Your task to perform on an android device: set the stopwatch Image 0: 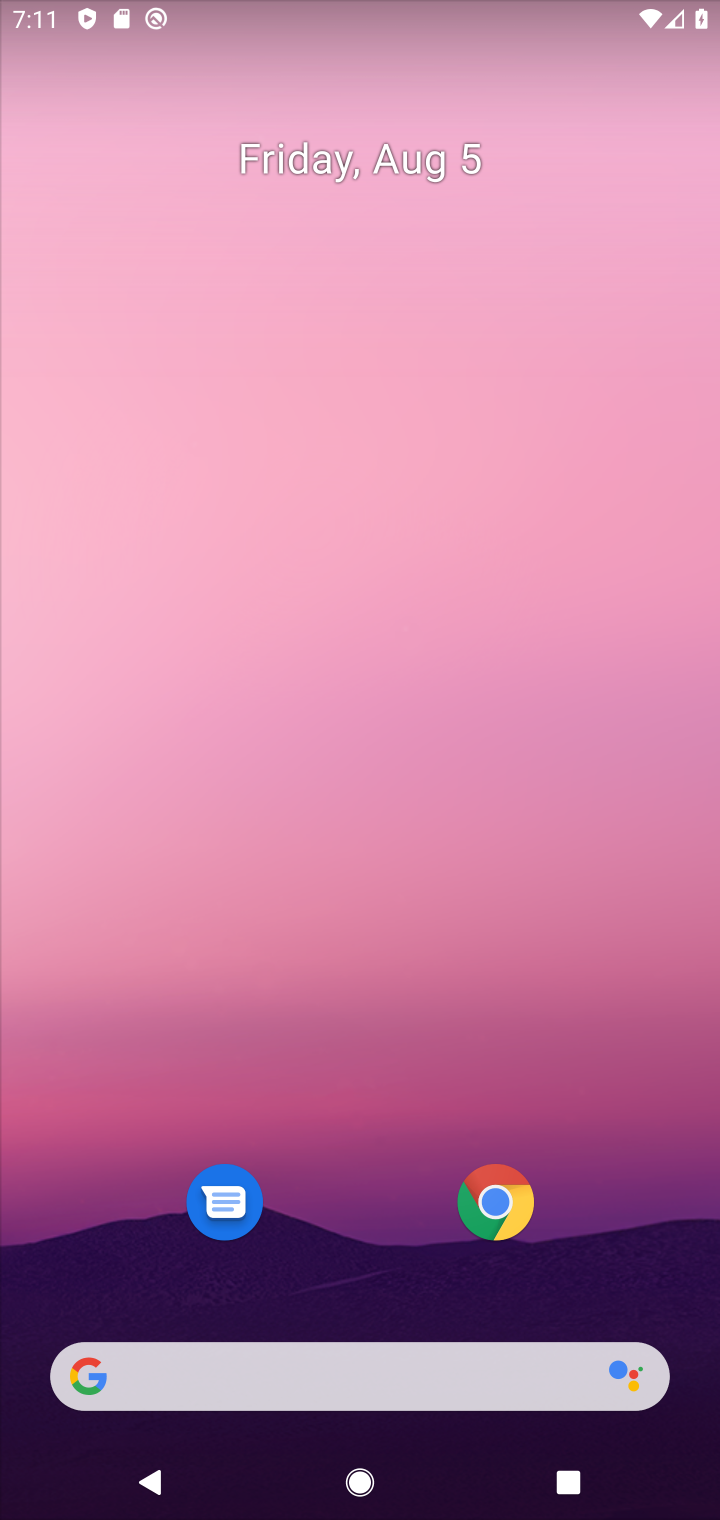
Step 0: drag from (440, 845) to (504, 9)
Your task to perform on an android device: set the stopwatch Image 1: 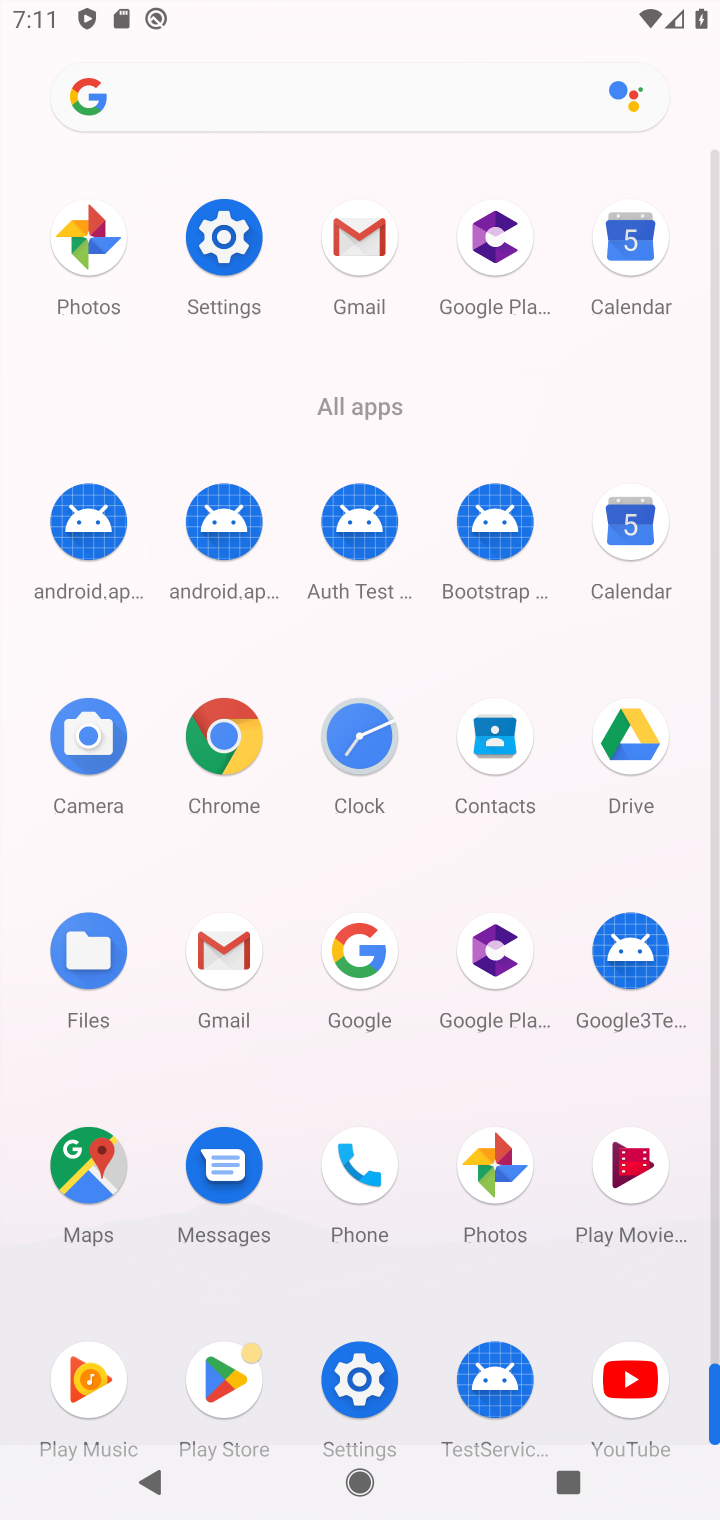
Step 1: drag from (418, 1269) to (435, 442)
Your task to perform on an android device: set the stopwatch Image 2: 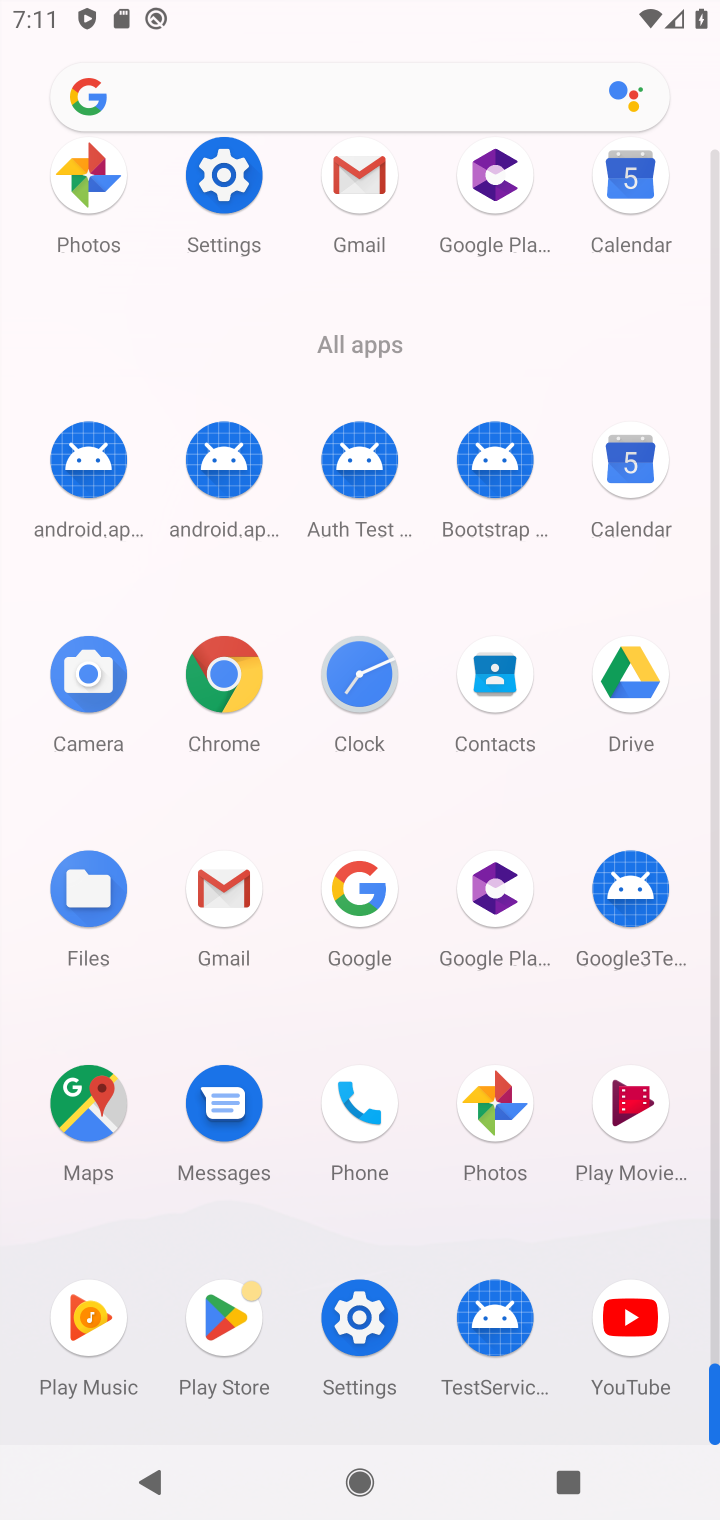
Step 2: click (385, 669)
Your task to perform on an android device: set the stopwatch Image 3: 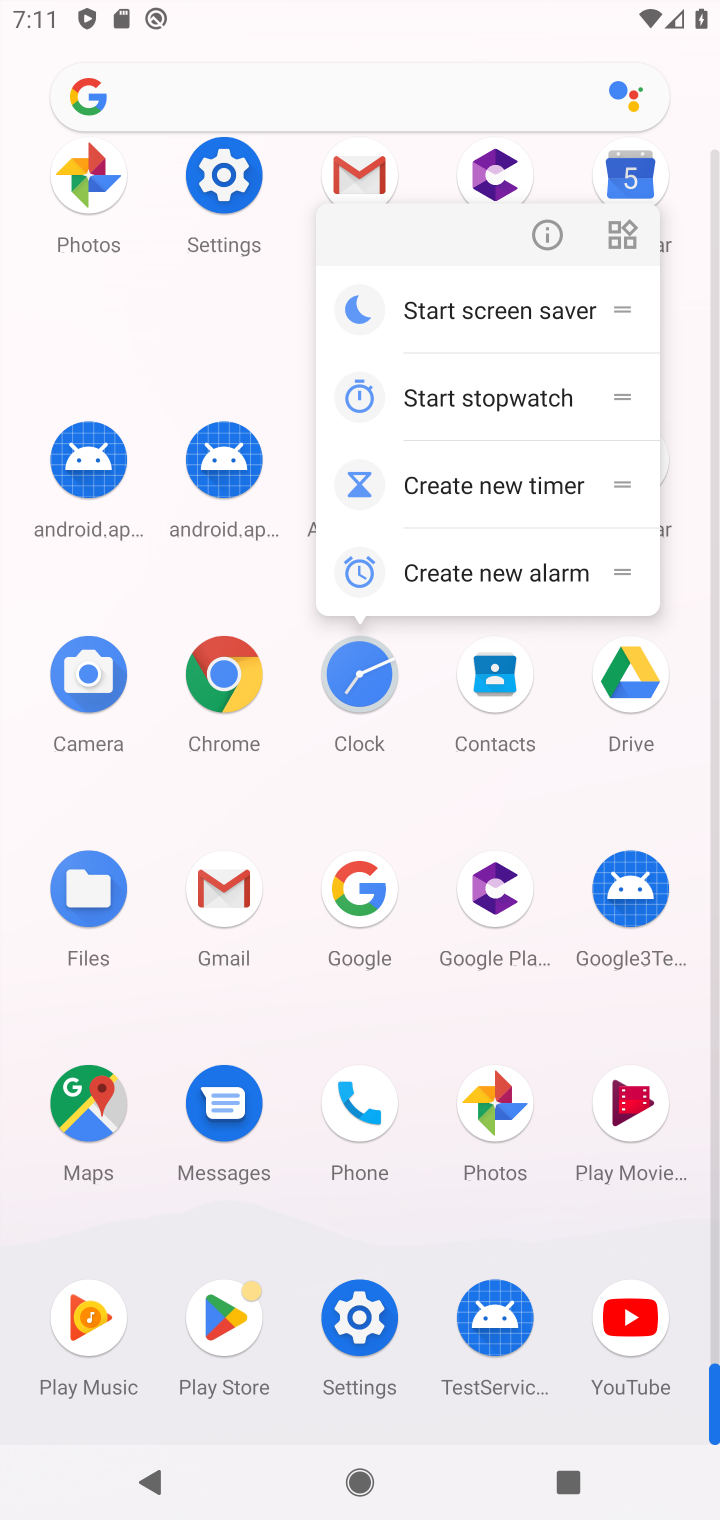
Step 3: click (544, 230)
Your task to perform on an android device: set the stopwatch Image 4: 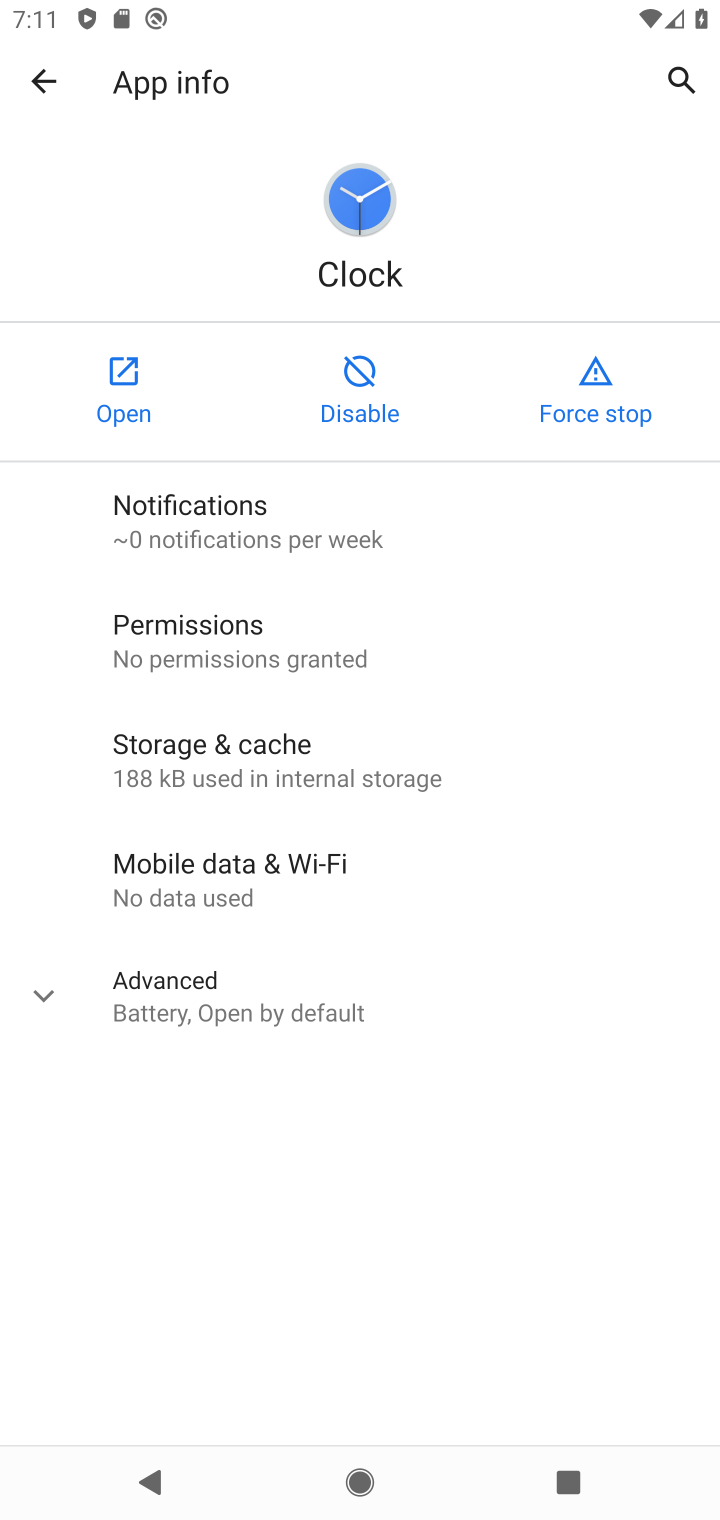
Step 4: click (128, 367)
Your task to perform on an android device: set the stopwatch Image 5: 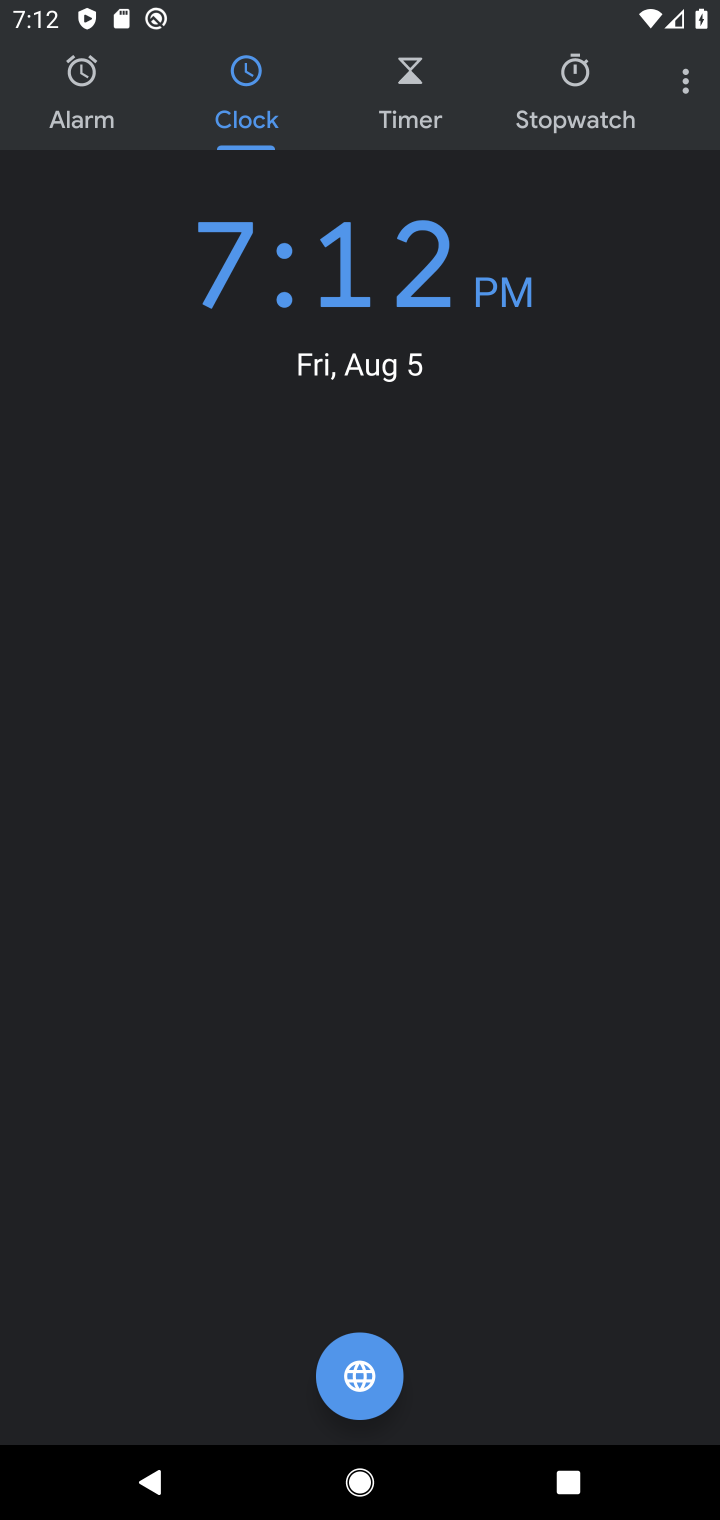
Step 5: click (515, 84)
Your task to perform on an android device: set the stopwatch Image 6: 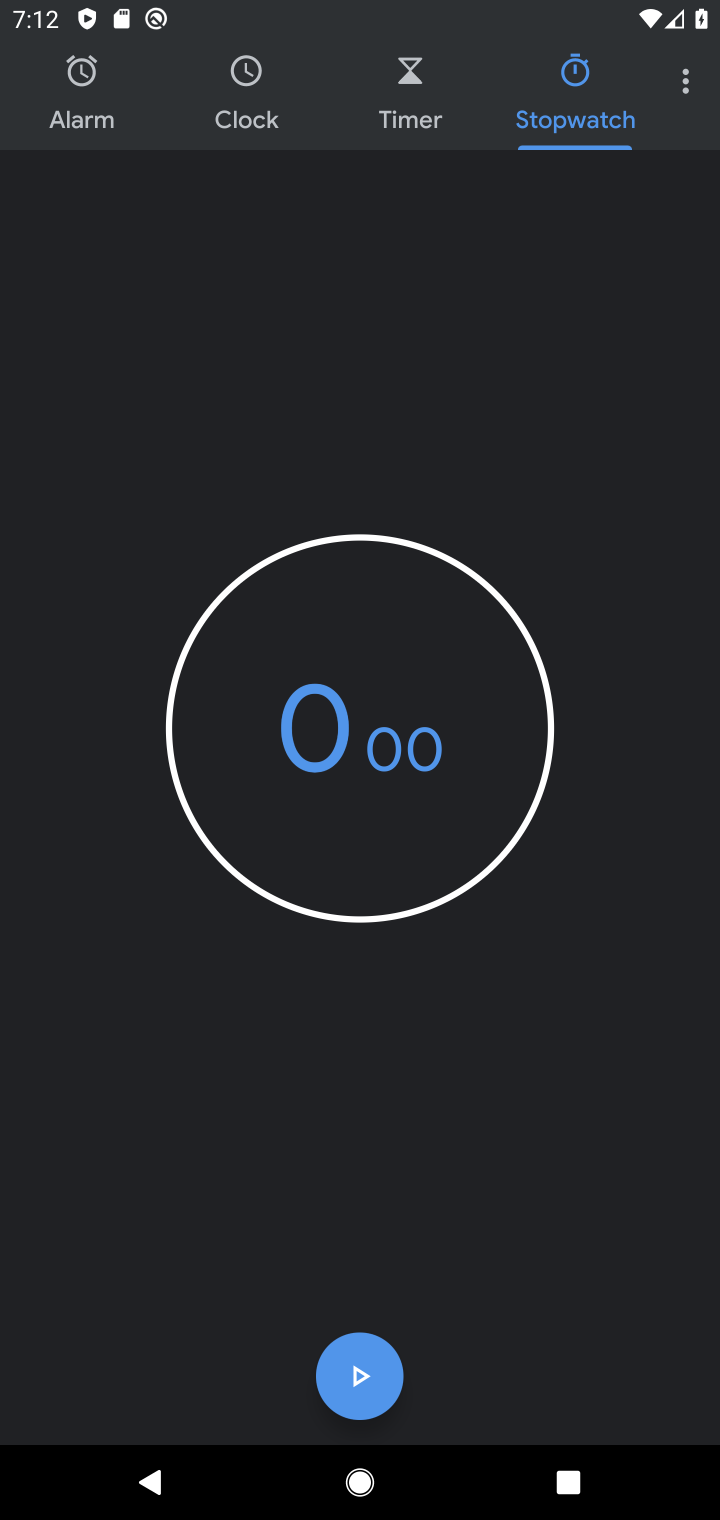
Step 6: drag from (428, 918) to (478, 378)
Your task to perform on an android device: set the stopwatch Image 7: 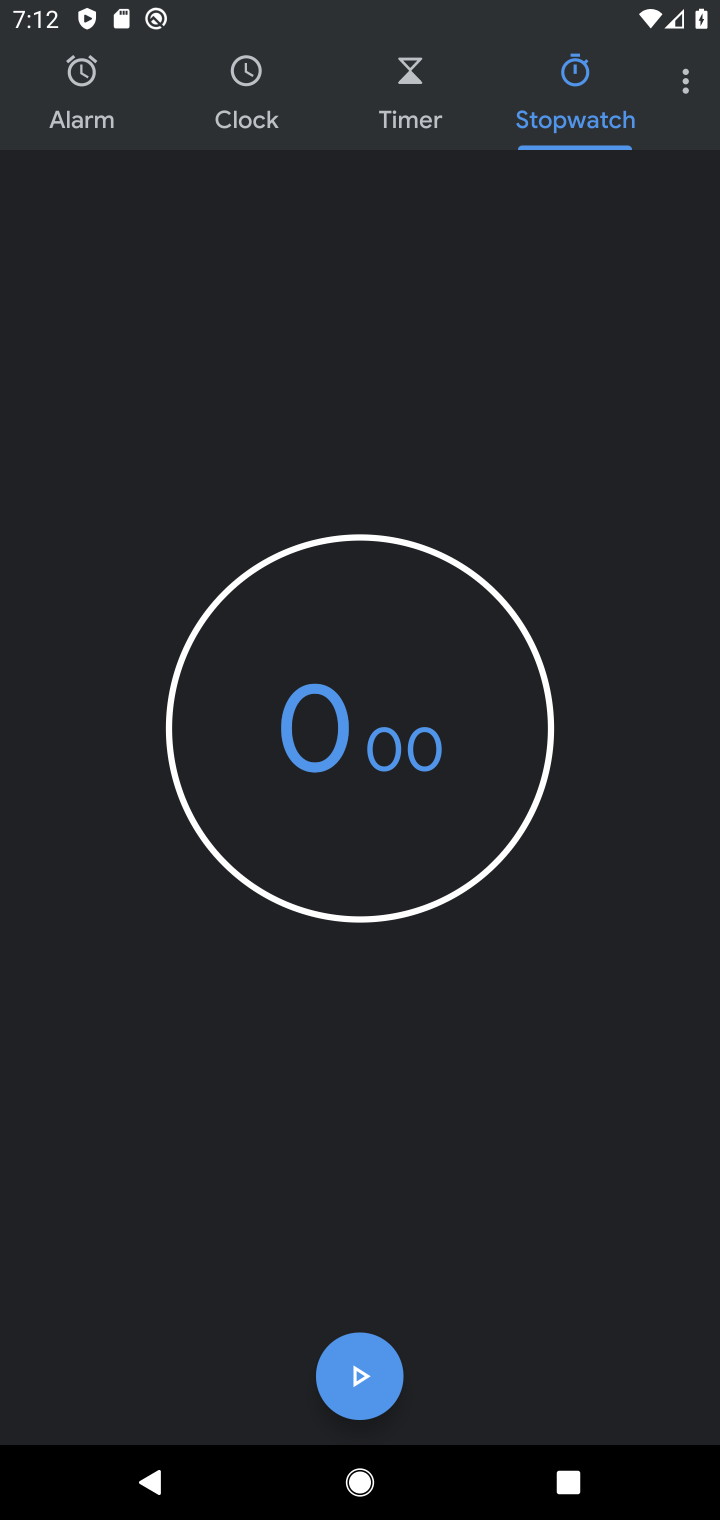
Step 7: click (378, 1386)
Your task to perform on an android device: set the stopwatch Image 8: 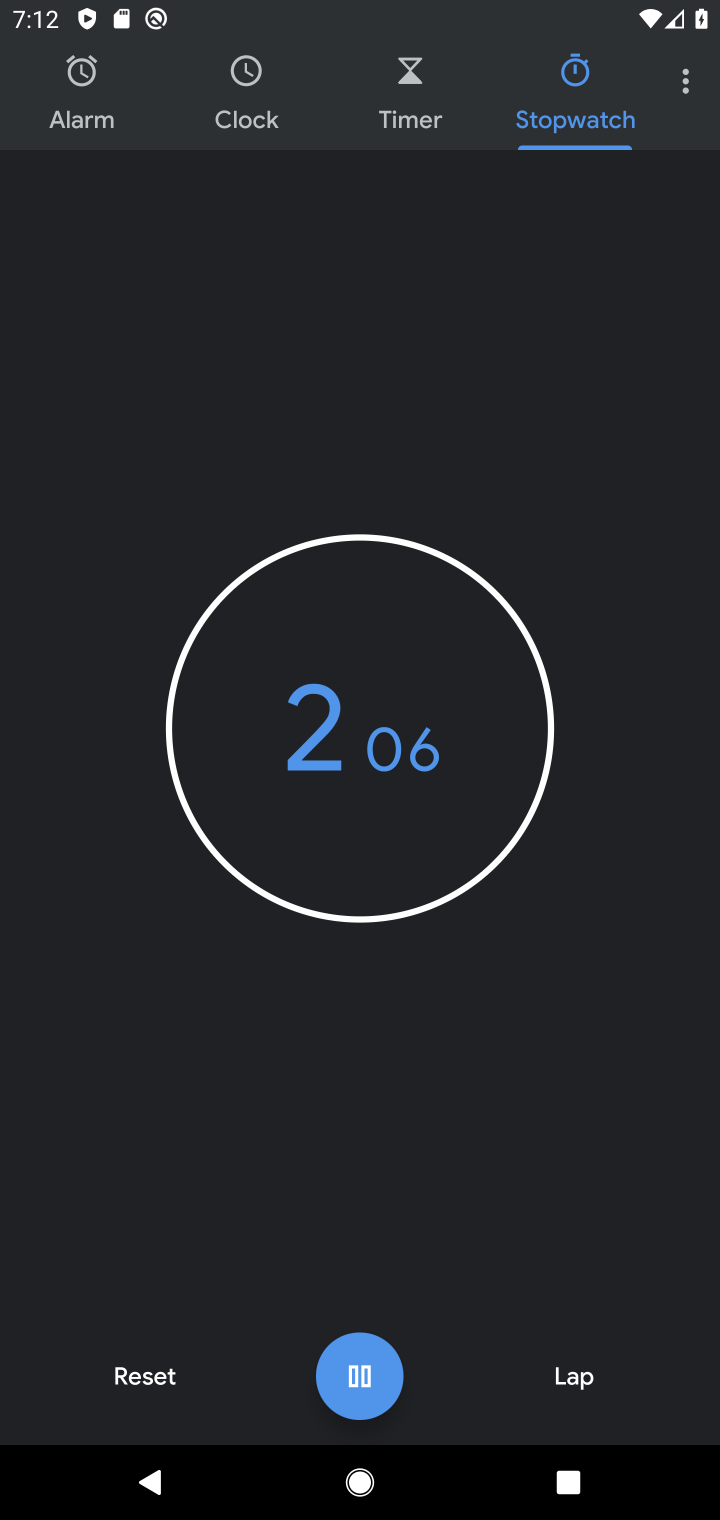
Step 8: task complete